Your task to perform on an android device: turn on javascript in the chrome app Image 0: 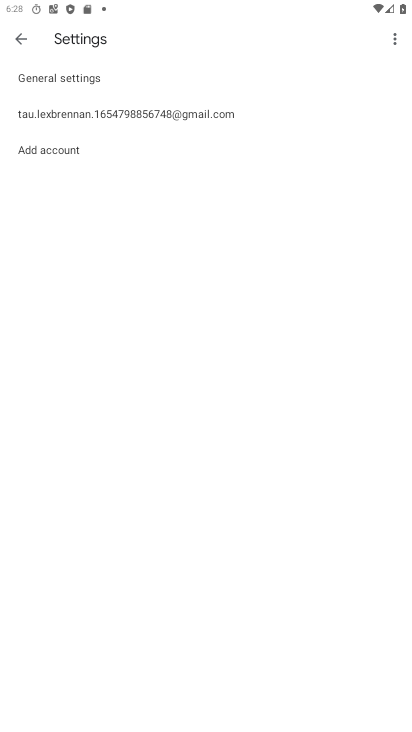
Step 0: press home button
Your task to perform on an android device: turn on javascript in the chrome app Image 1: 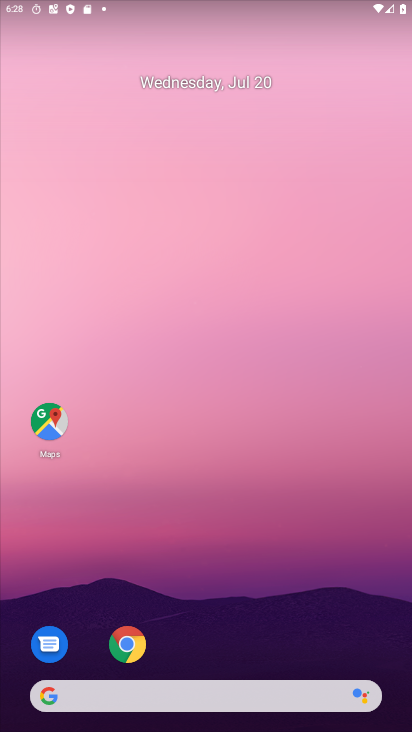
Step 1: drag from (219, 596) to (60, 60)
Your task to perform on an android device: turn on javascript in the chrome app Image 2: 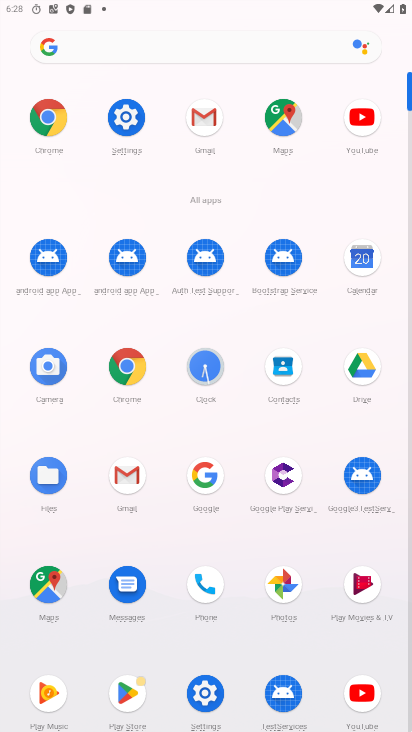
Step 2: click (57, 128)
Your task to perform on an android device: turn on javascript in the chrome app Image 3: 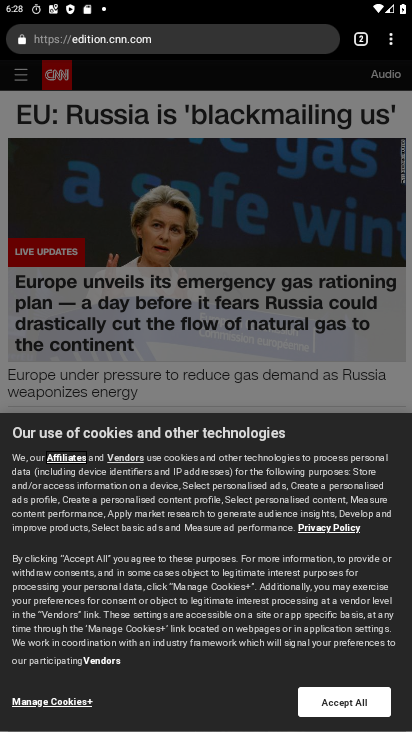
Step 3: drag from (387, 43) to (258, 436)
Your task to perform on an android device: turn on javascript in the chrome app Image 4: 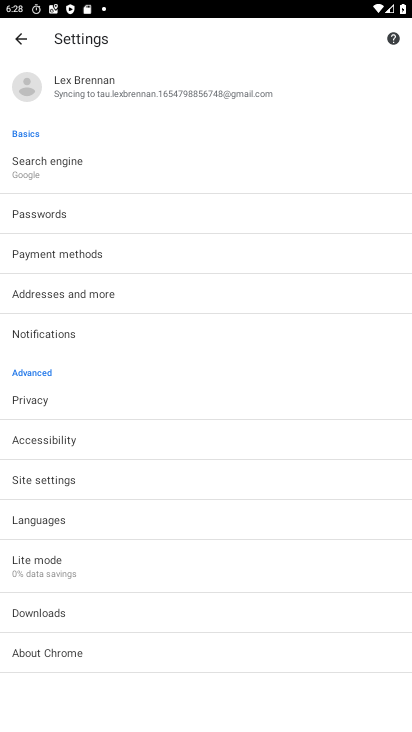
Step 4: click (42, 477)
Your task to perform on an android device: turn on javascript in the chrome app Image 5: 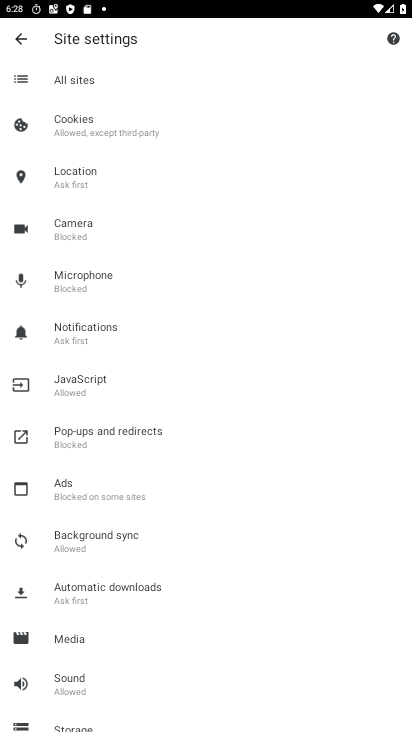
Step 5: click (90, 388)
Your task to perform on an android device: turn on javascript in the chrome app Image 6: 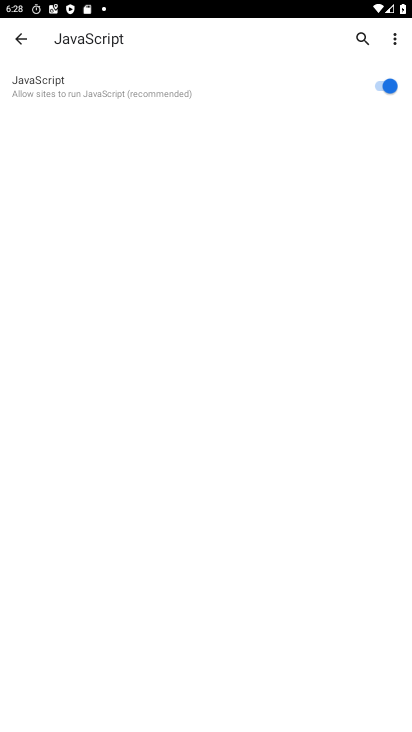
Step 6: task complete